Your task to perform on an android device: read, delete, or share a saved page in the chrome app Image 0: 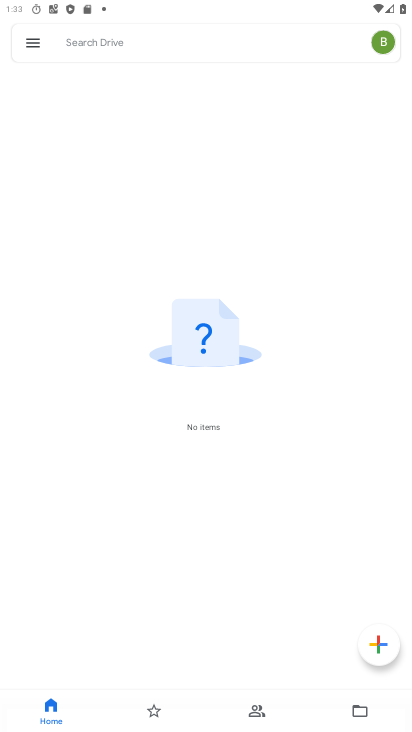
Step 0: press home button
Your task to perform on an android device: read, delete, or share a saved page in the chrome app Image 1: 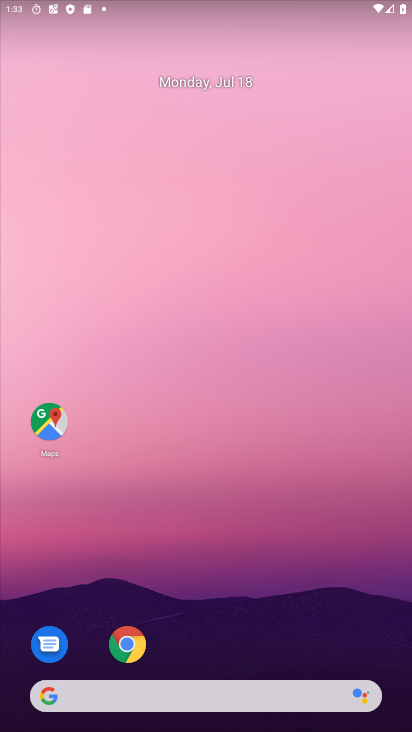
Step 1: click (128, 660)
Your task to perform on an android device: read, delete, or share a saved page in the chrome app Image 2: 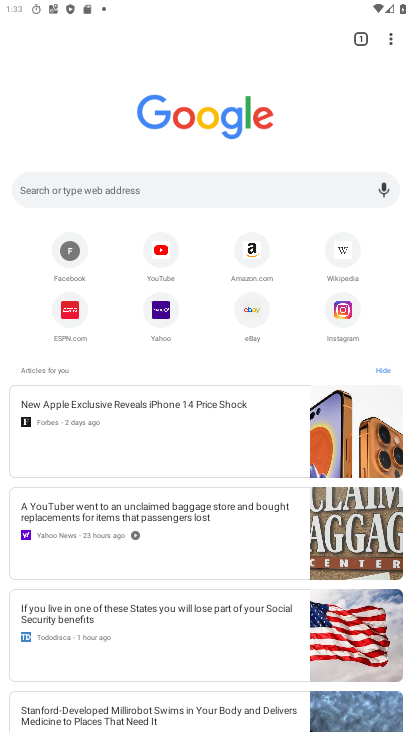
Step 2: click (393, 44)
Your task to perform on an android device: read, delete, or share a saved page in the chrome app Image 3: 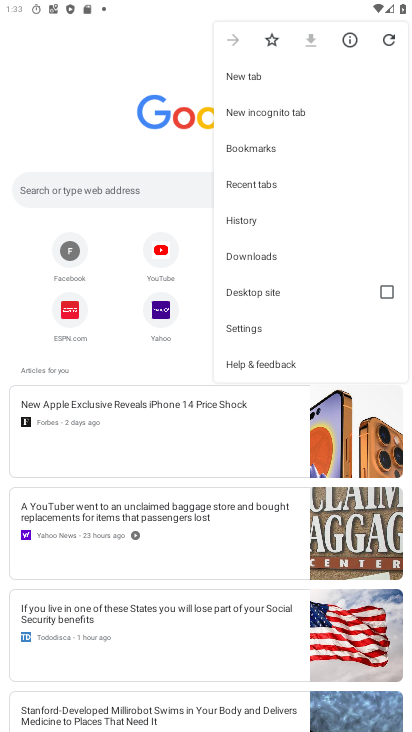
Step 3: click (256, 243)
Your task to perform on an android device: read, delete, or share a saved page in the chrome app Image 4: 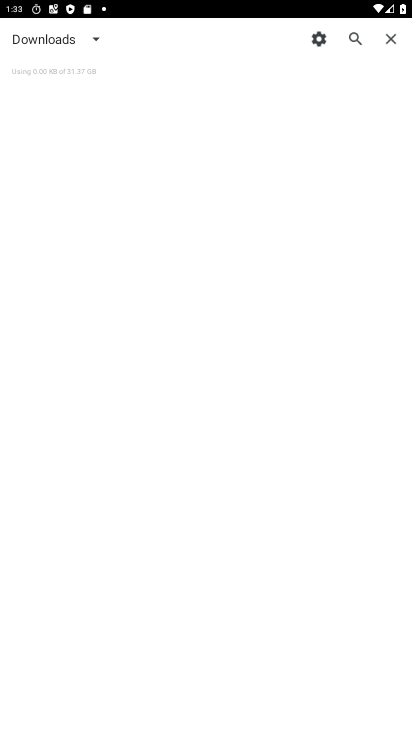
Step 4: click (6, 43)
Your task to perform on an android device: read, delete, or share a saved page in the chrome app Image 5: 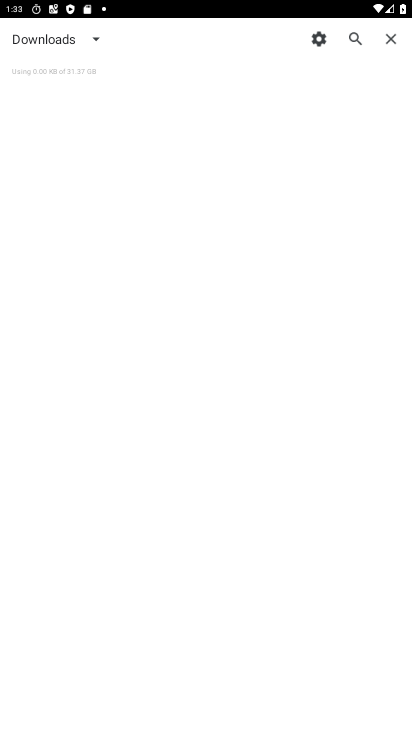
Step 5: click (73, 38)
Your task to perform on an android device: read, delete, or share a saved page in the chrome app Image 6: 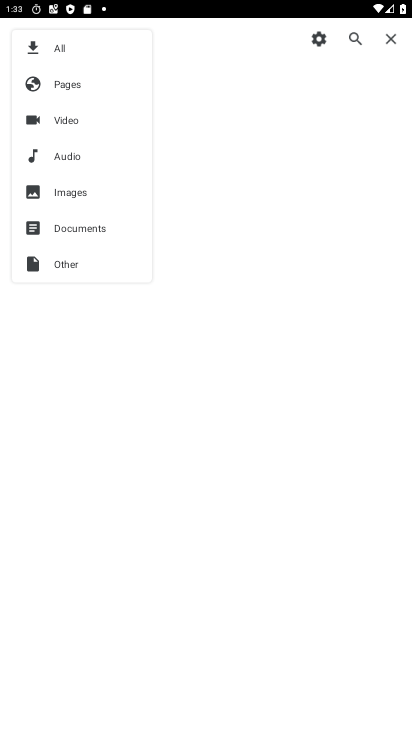
Step 6: click (82, 82)
Your task to perform on an android device: read, delete, or share a saved page in the chrome app Image 7: 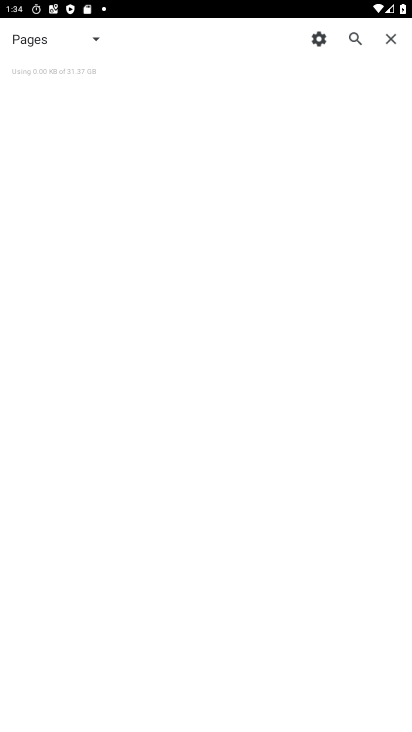
Step 7: task complete